Your task to perform on an android device: toggle notification dots Image 0: 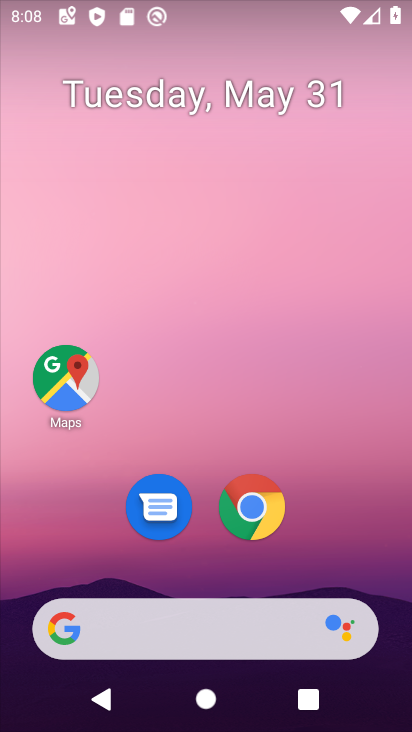
Step 0: drag from (339, 491) to (354, 165)
Your task to perform on an android device: toggle notification dots Image 1: 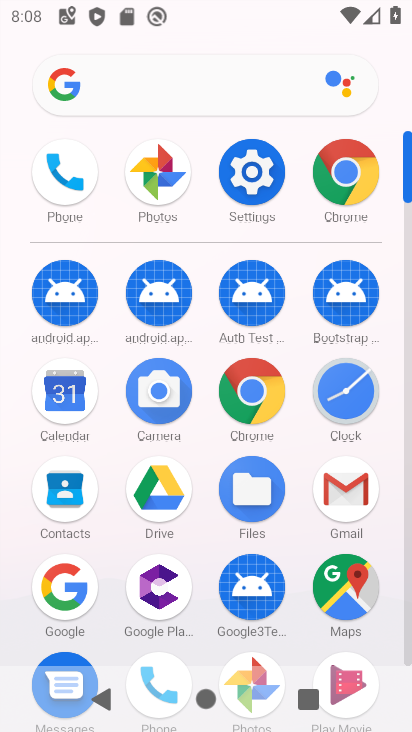
Step 1: click (267, 172)
Your task to perform on an android device: toggle notification dots Image 2: 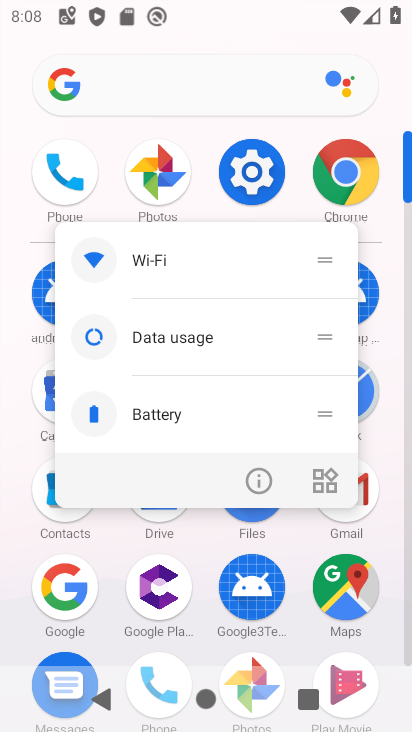
Step 2: click (255, 173)
Your task to perform on an android device: toggle notification dots Image 3: 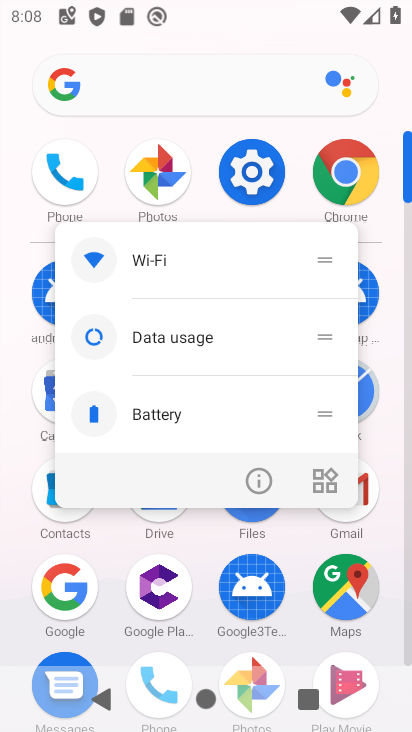
Step 3: click (255, 173)
Your task to perform on an android device: toggle notification dots Image 4: 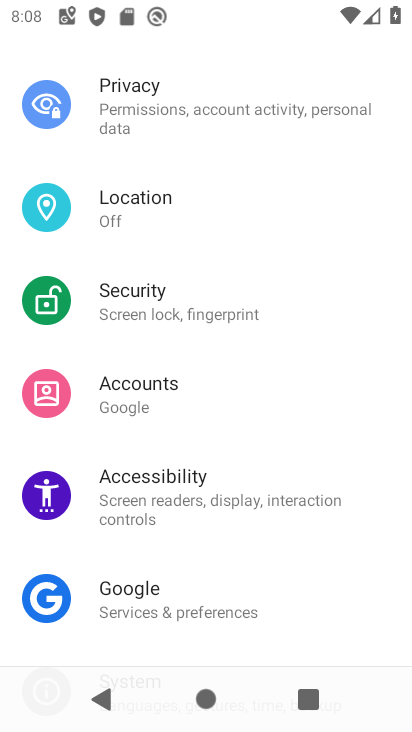
Step 4: drag from (253, 264) to (290, 541)
Your task to perform on an android device: toggle notification dots Image 5: 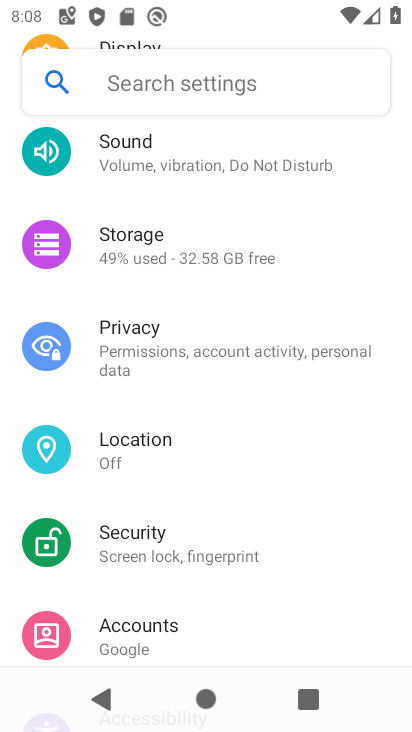
Step 5: drag from (319, 241) to (300, 513)
Your task to perform on an android device: toggle notification dots Image 6: 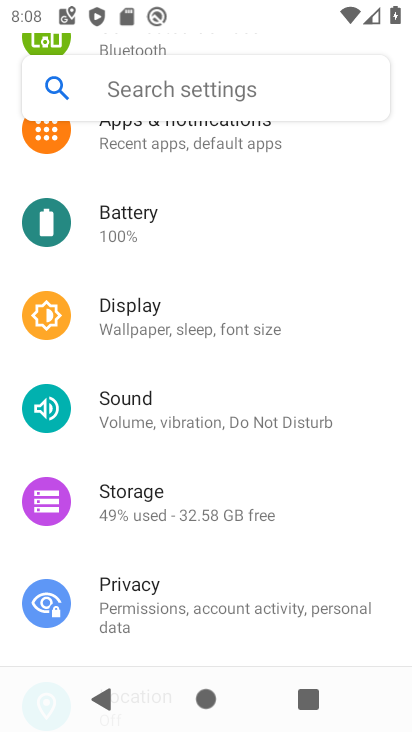
Step 6: drag from (270, 216) to (284, 520)
Your task to perform on an android device: toggle notification dots Image 7: 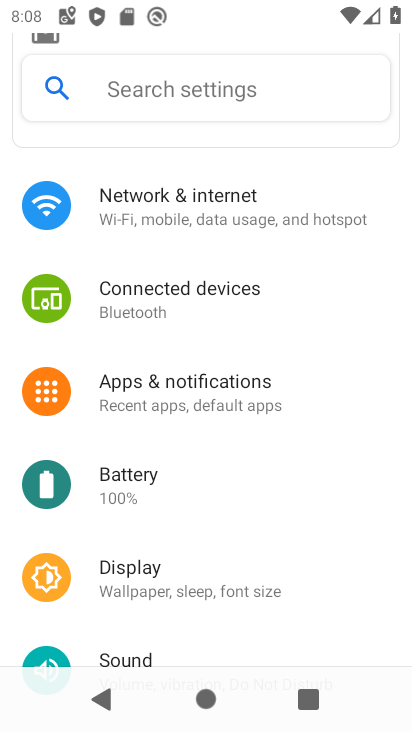
Step 7: click (206, 378)
Your task to perform on an android device: toggle notification dots Image 8: 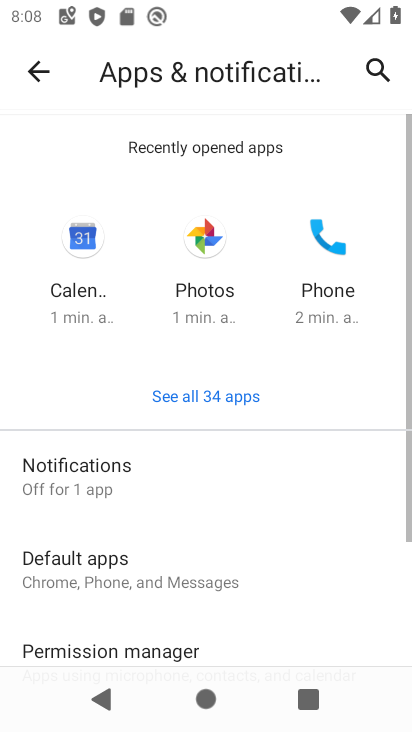
Step 8: click (123, 471)
Your task to perform on an android device: toggle notification dots Image 9: 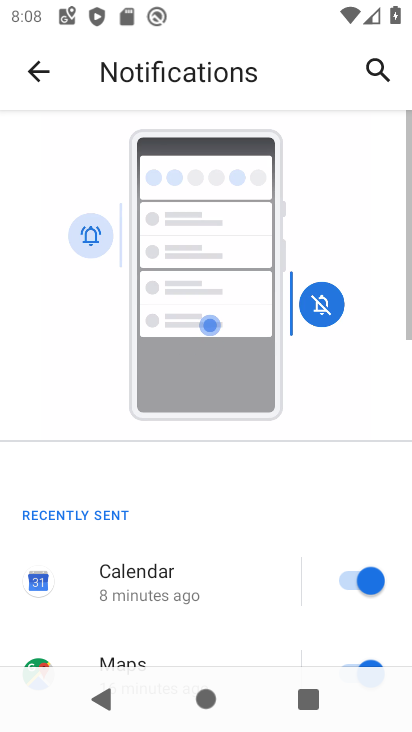
Step 9: drag from (254, 542) to (272, 88)
Your task to perform on an android device: toggle notification dots Image 10: 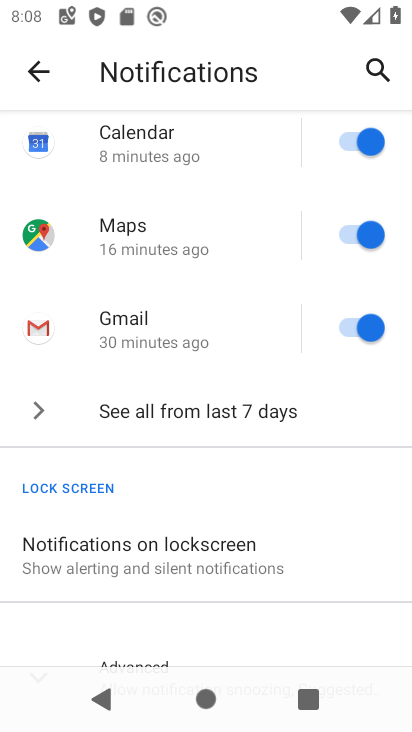
Step 10: drag from (276, 535) to (297, 188)
Your task to perform on an android device: toggle notification dots Image 11: 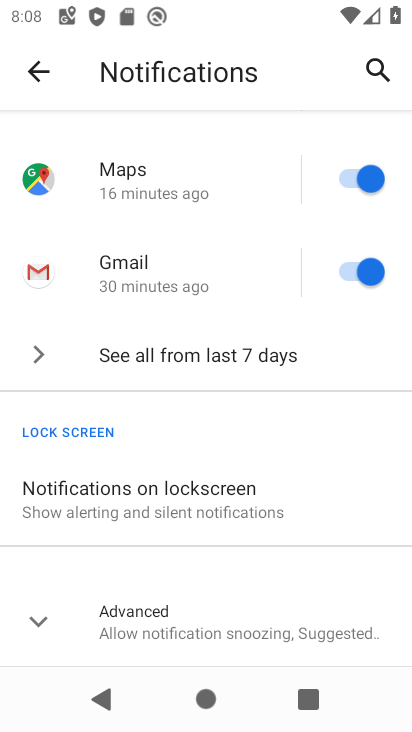
Step 11: click (161, 631)
Your task to perform on an android device: toggle notification dots Image 12: 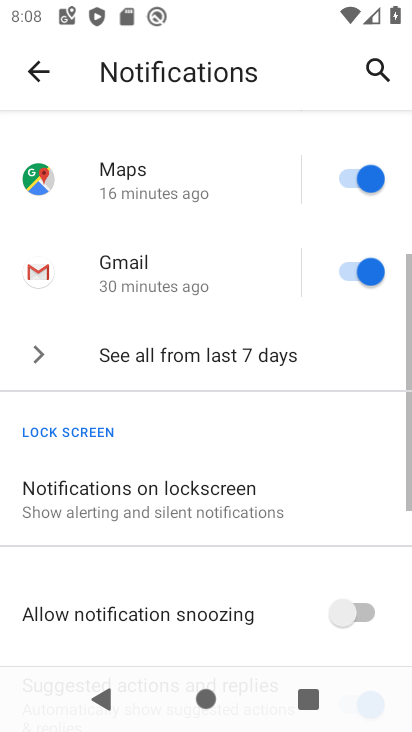
Step 12: drag from (204, 580) to (263, 315)
Your task to perform on an android device: toggle notification dots Image 13: 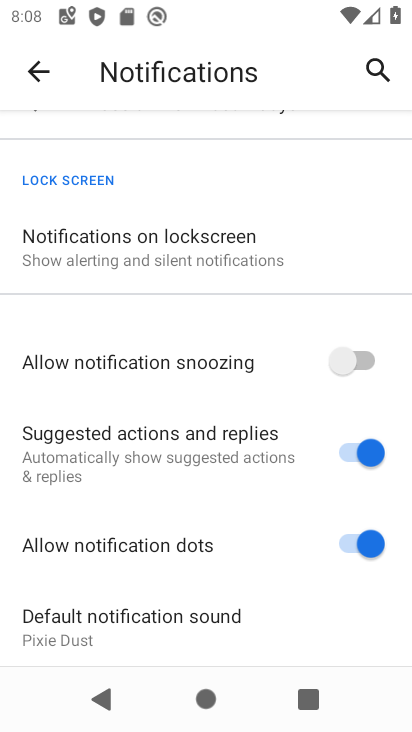
Step 13: click (372, 535)
Your task to perform on an android device: toggle notification dots Image 14: 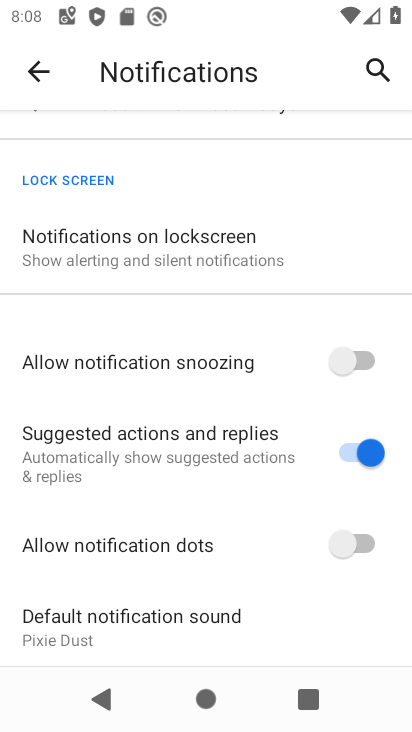
Step 14: task complete